Your task to perform on an android device: change keyboard looks Image 0: 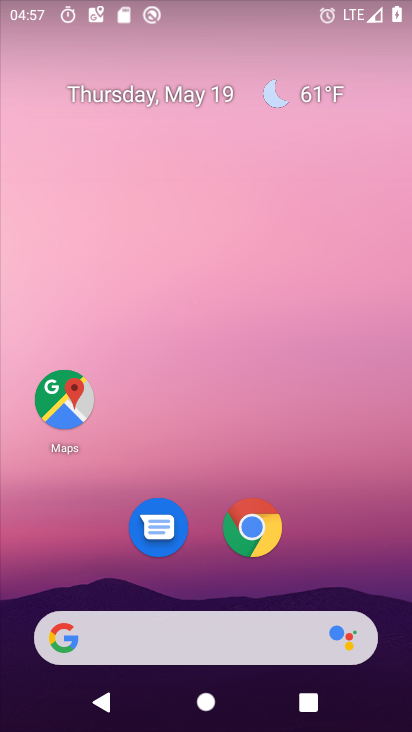
Step 0: drag from (193, 525) to (293, 90)
Your task to perform on an android device: change keyboard looks Image 1: 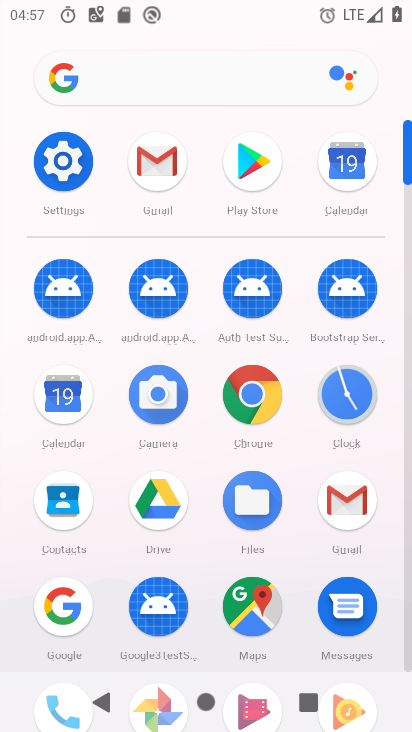
Step 1: click (52, 175)
Your task to perform on an android device: change keyboard looks Image 2: 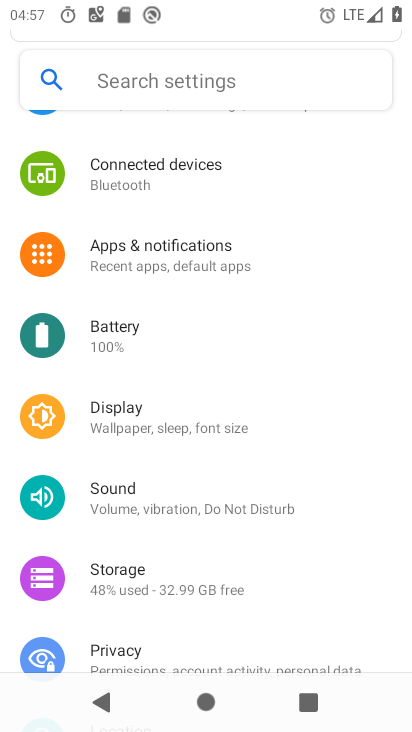
Step 2: drag from (189, 622) to (326, 39)
Your task to perform on an android device: change keyboard looks Image 3: 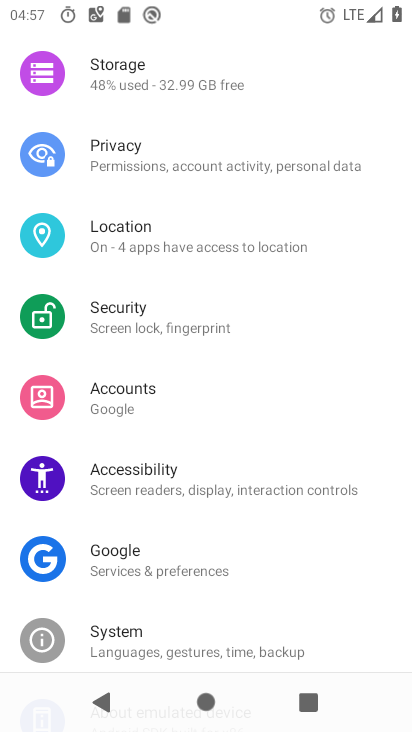
Step 3: drag from (145, 634) to (307, 106)
Your task to perform on an android device: change keyboard looks Image 4: 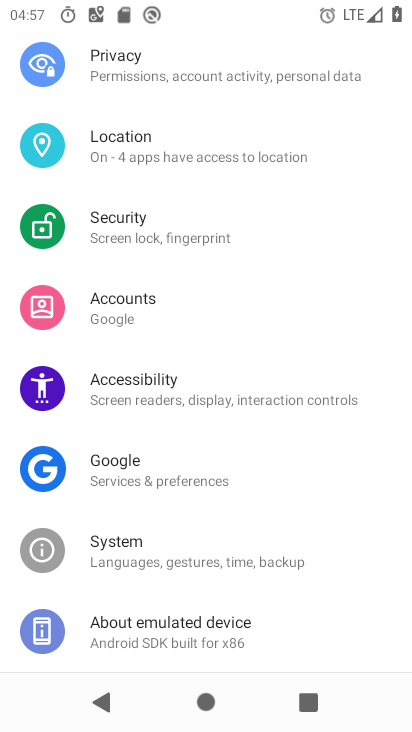
Step 4: click (131, 555)
Your task to perform on an android device: change keyboard looks Image 5: 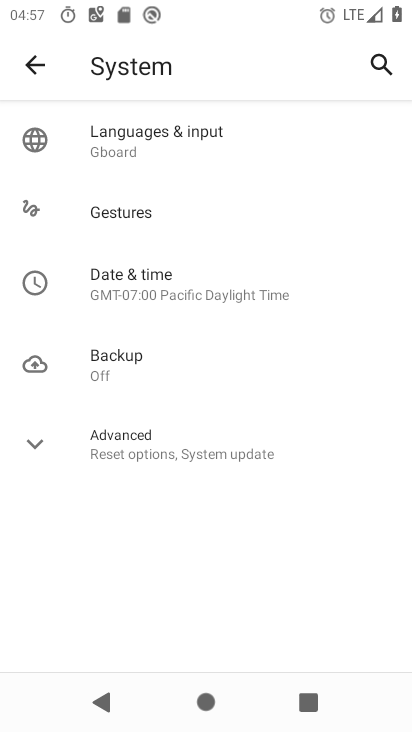
Step 5: click (136, 137)
Your task to perform on an android device: change keyboard looks Image 6: 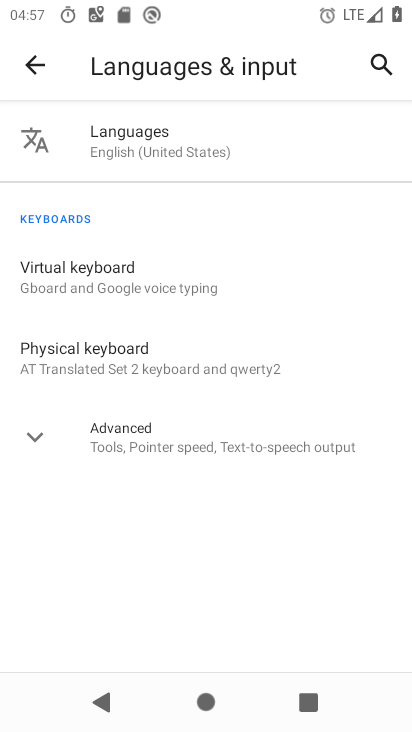
Step 6: click (104, 272)
Your task to perform on an android device: change keyboard looks Image 7: 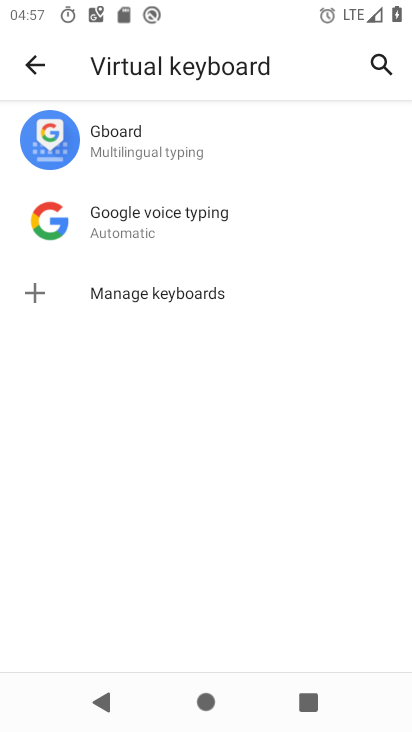
Step 7: click (138, 144)
Your task to perform on an android device: change keyboard looks Image 8: 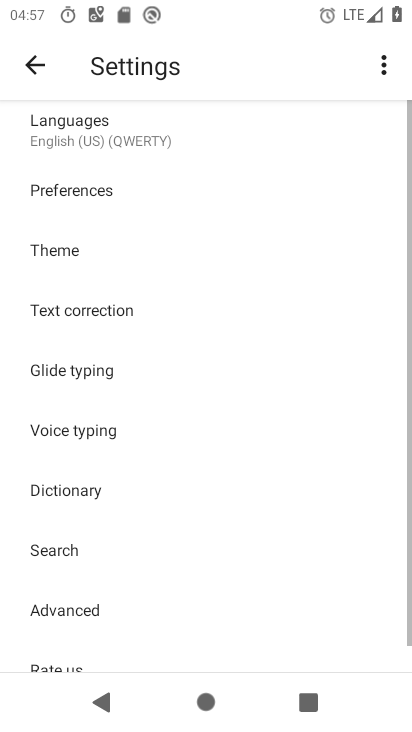
Step 8: click (88, 247)
Your task to perform on an android device: change keyboard looks Image 9: 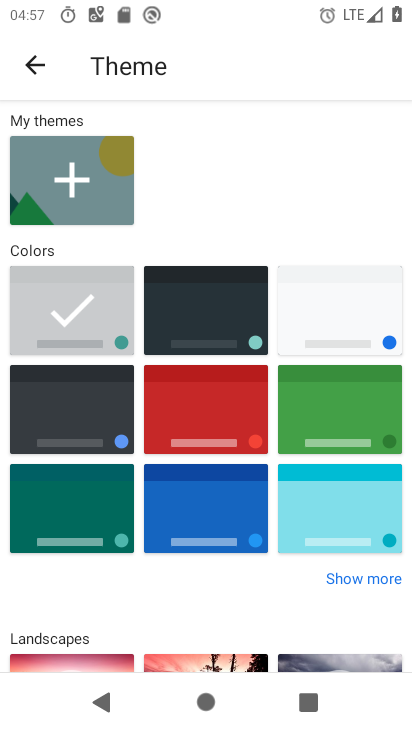
Step 9: click (184, 409)
Your task to perform on an android device: change keyboard looks Image 10: 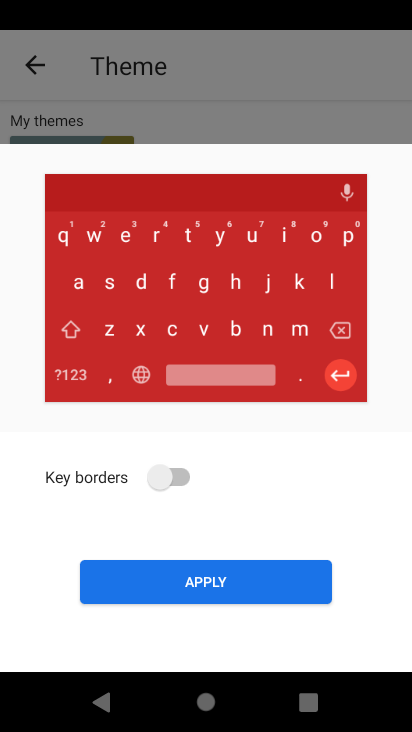
Step 10: click (201, 560)
Your task to perform on an android device: change keyboard looks Image 11: 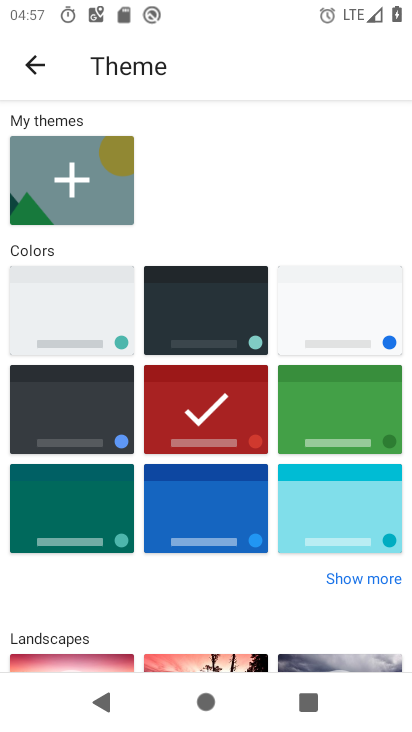
Step 11: task complete